Your task to perform on an android device: set an alarm Image 0: 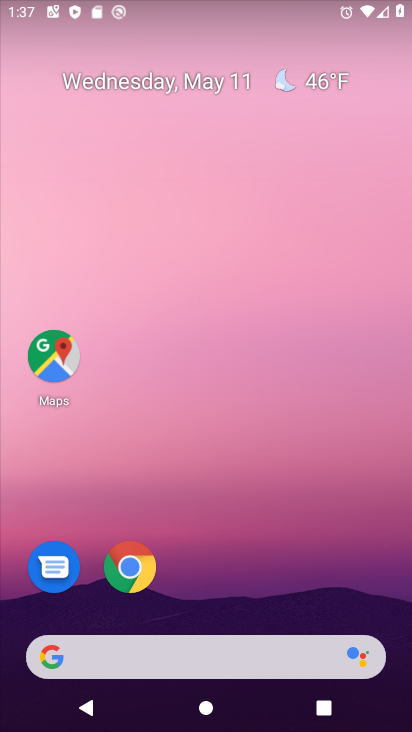
Step 0: drag from (219, 644) to (202, 5)
Your task to perform on an android device: set an alarm Image 1: 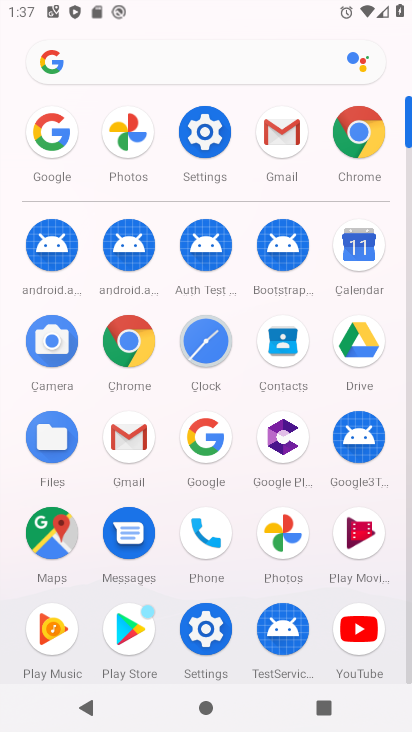
Step 1: click (204, 348)
Your task to perform on an android device: set an alarm Image 2: 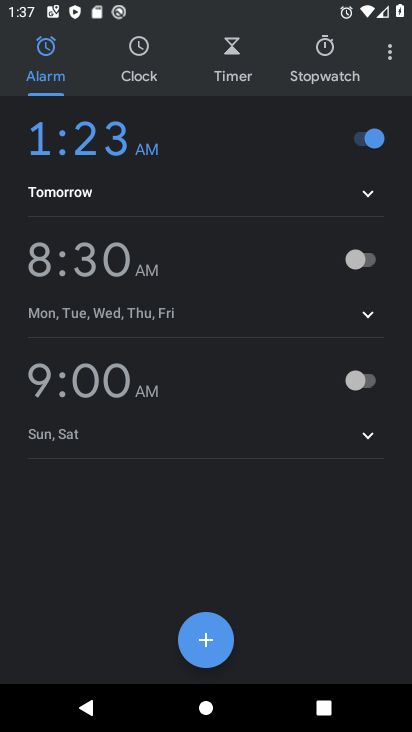
Step 2: click (219, 651)
Your task to perform on an android device: set an alarm Image 3: 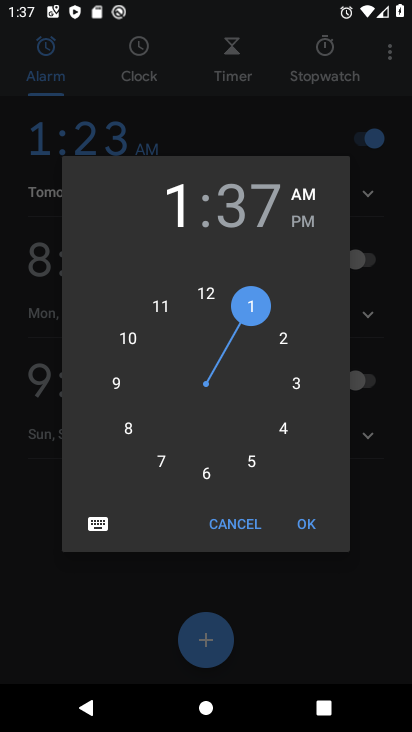
Step 3: click (298, 530)
Your task to perform on an android device: set an alarm Image 4: 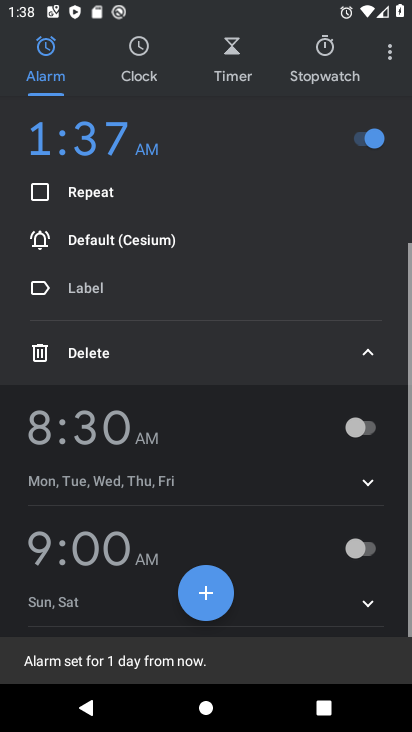
Step 4: task complete